Your task to perform on an android device: turn on data saver in the chrome app Image 0: 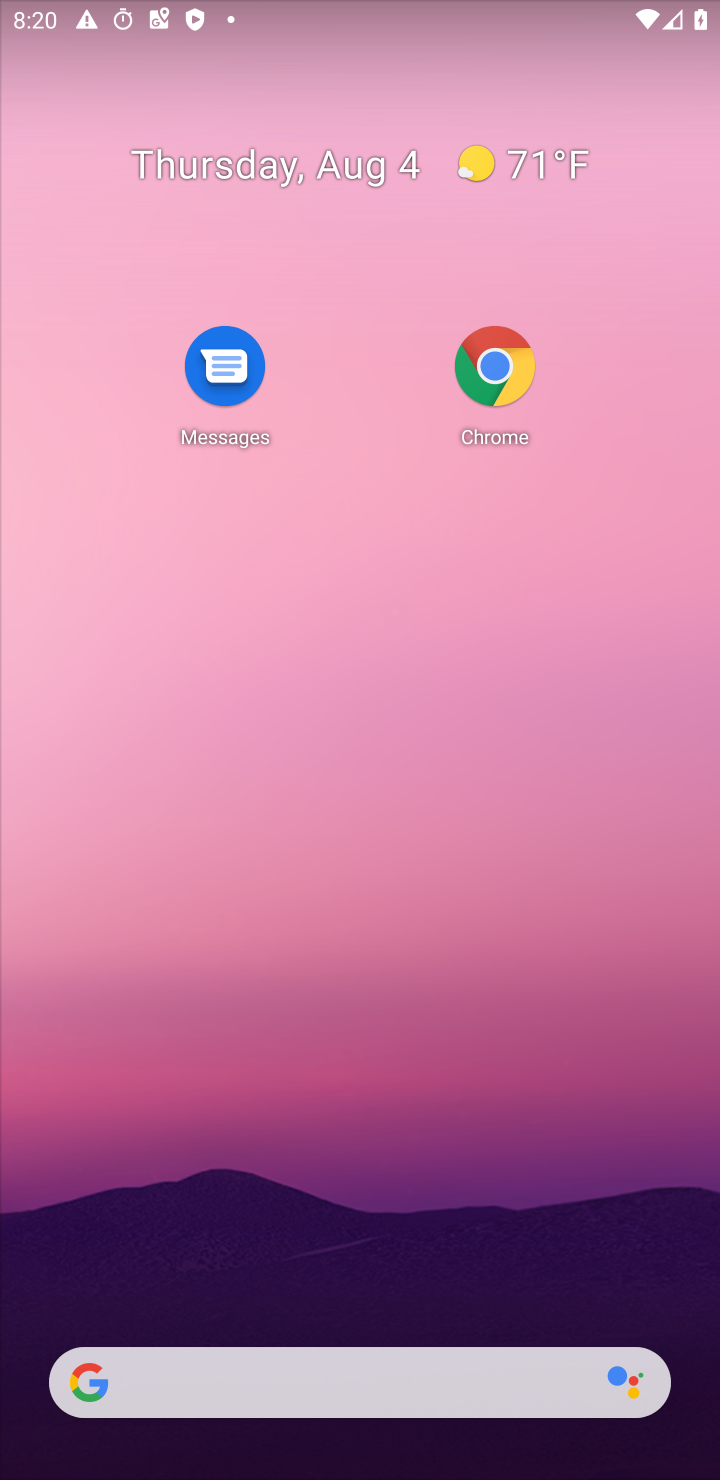
Step 0: drag from (480, 1287) to (596, 167)
Your task to perform on an android device: turn on data saver in the chrome app Image 1: 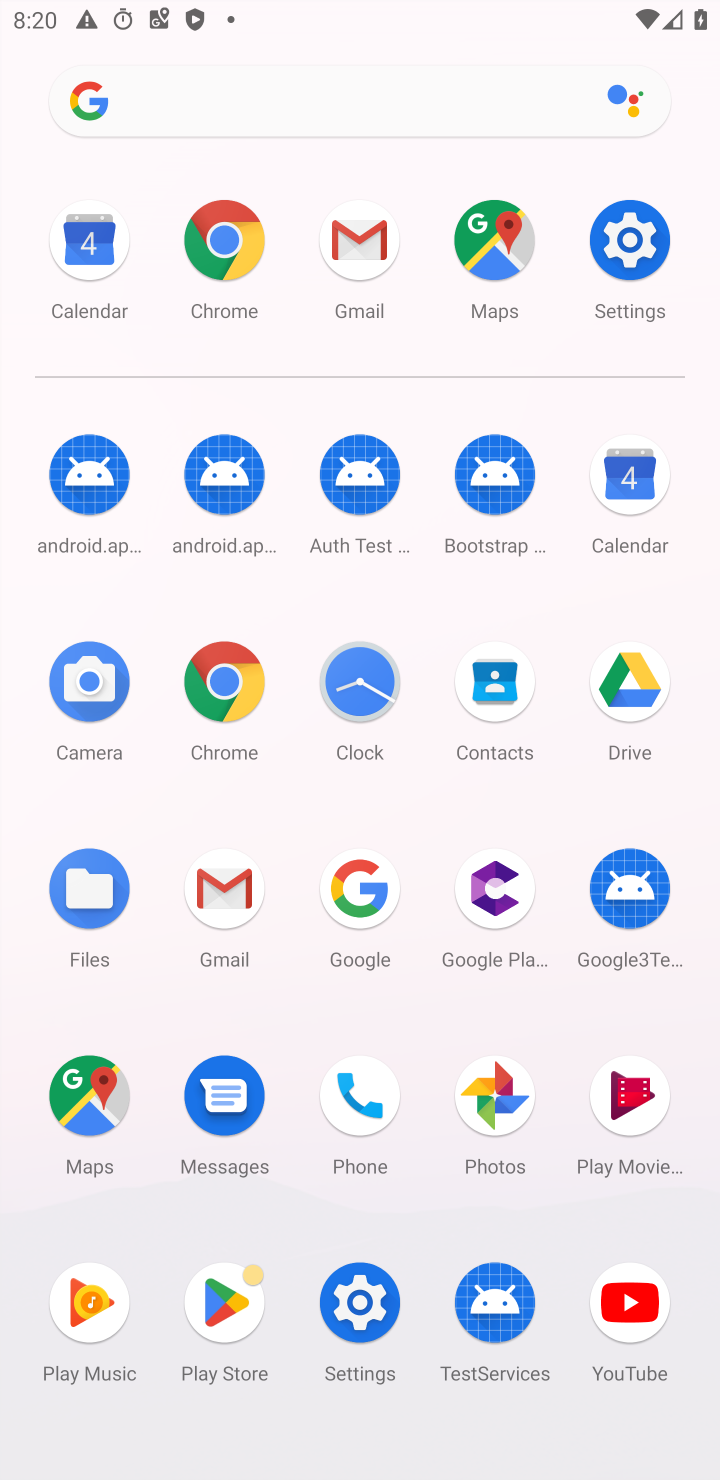
Step 1: click (226, 688)
Your task to perform on an android device: turn on data saver in the chrome app Image 2: 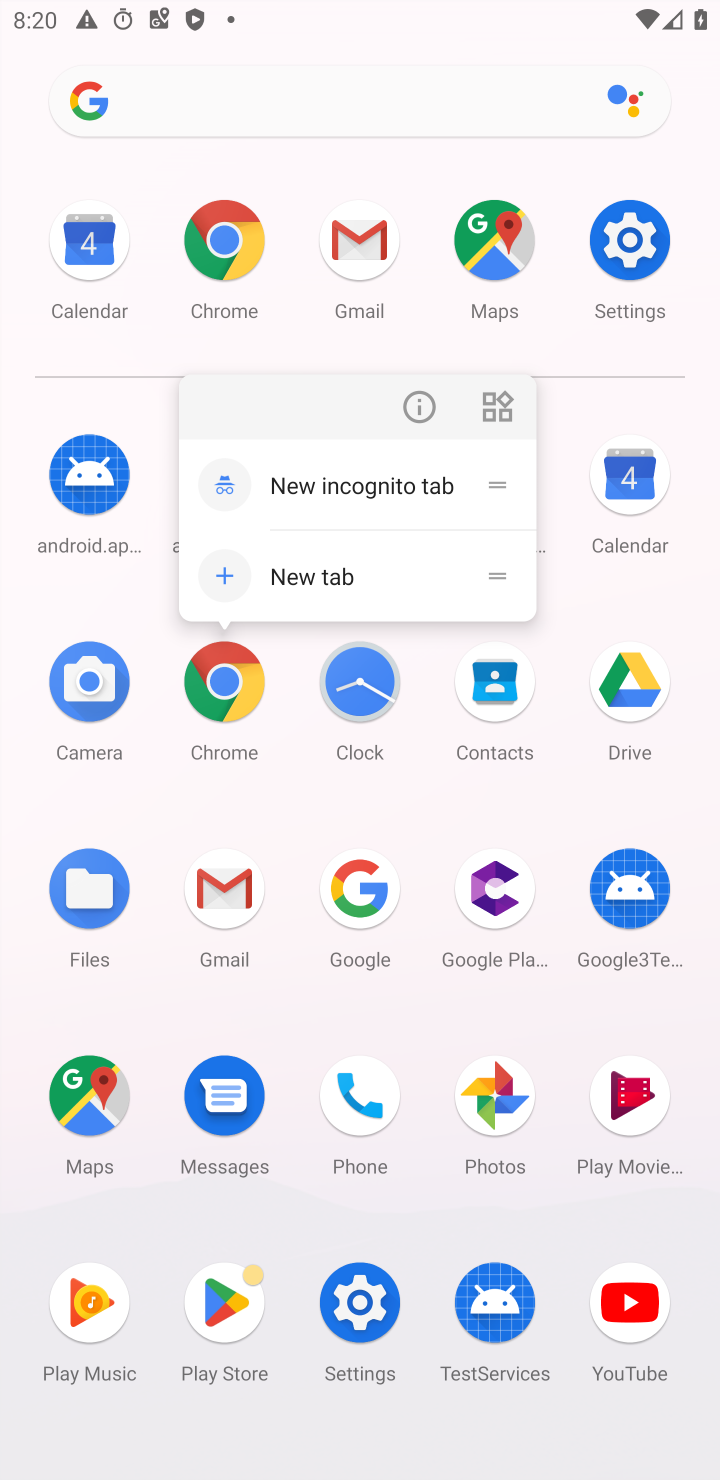
Step 2: click (240, 675)
Your task to perform on an android device: turn on data saver in the chrome app Image 3: 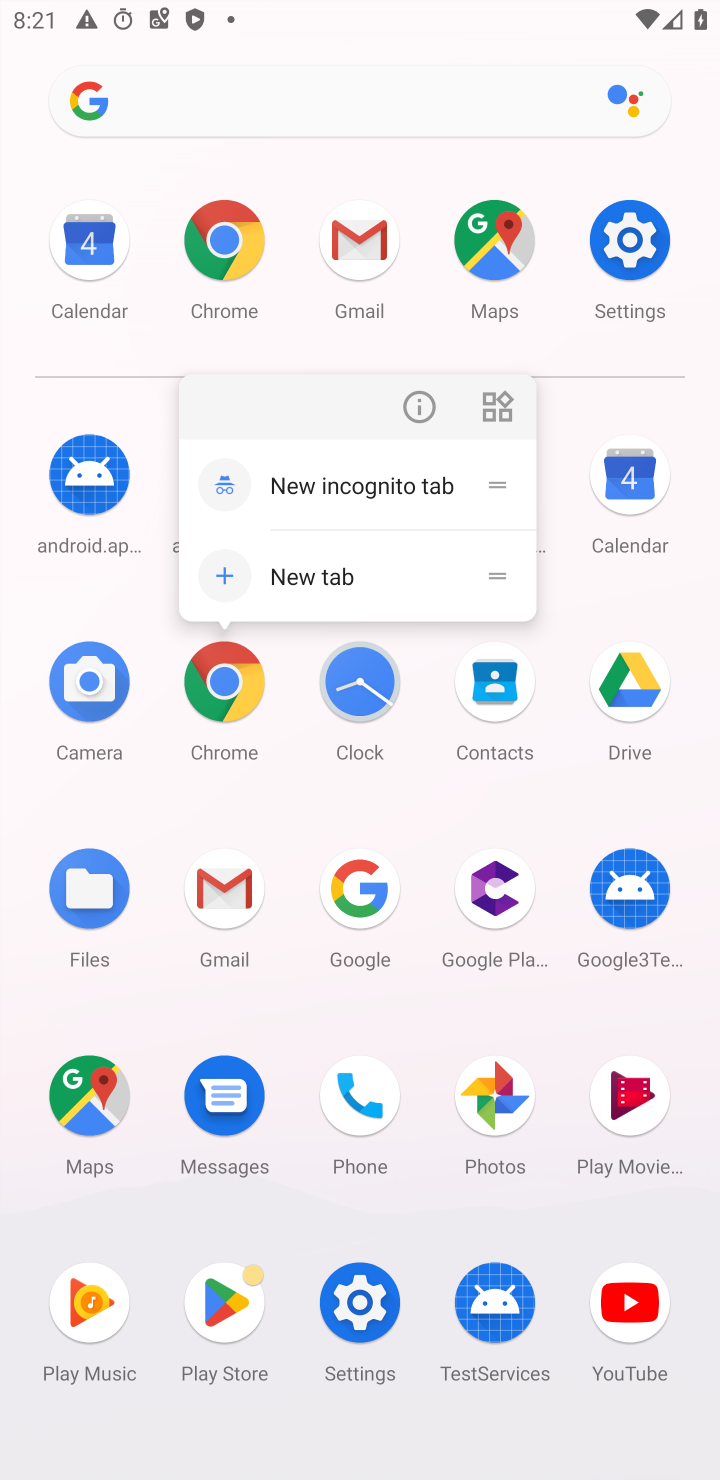
Step 3: click (240, 675)
Your task to perform on an android device: turn on data saver in the chrome app Image 4: 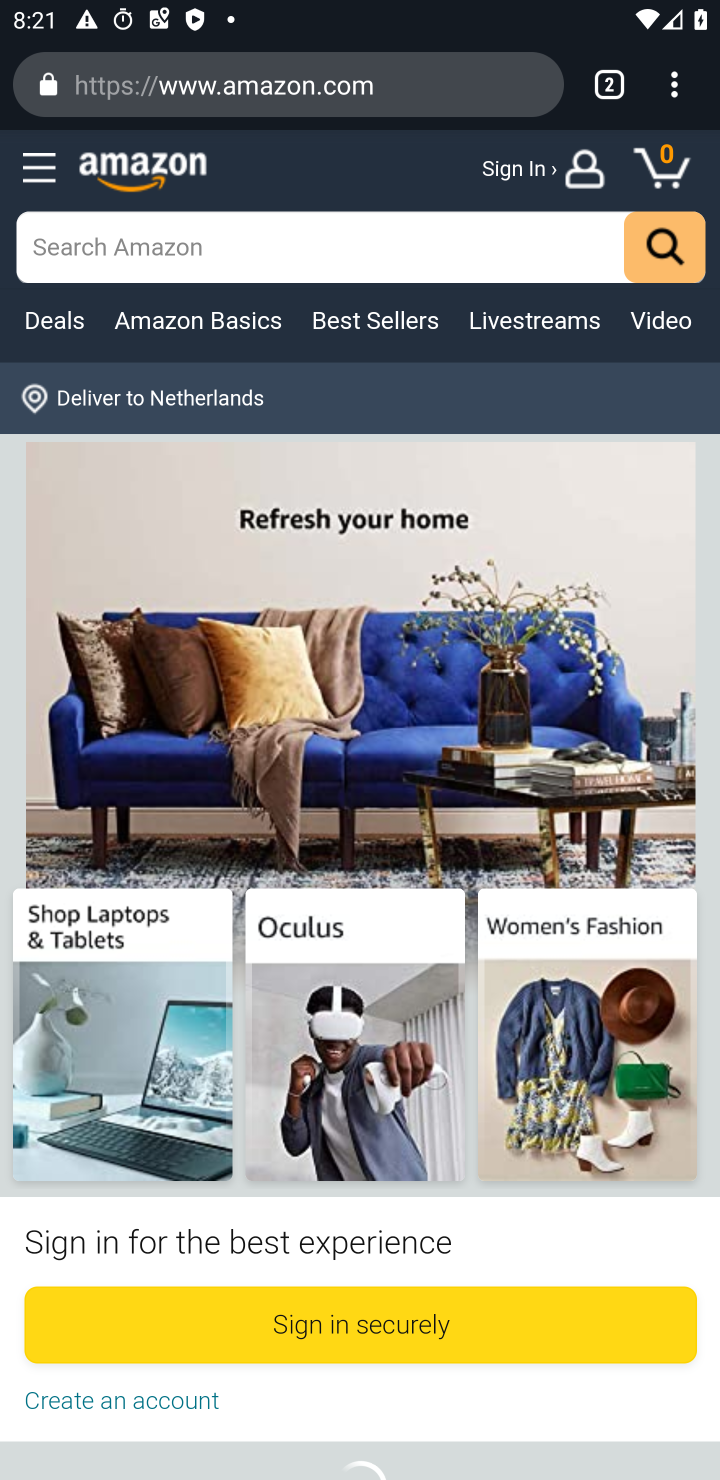
Step 4: click (670, 72)
Your task to perform on an android device: turn on data saver in the chrome app Image 5: 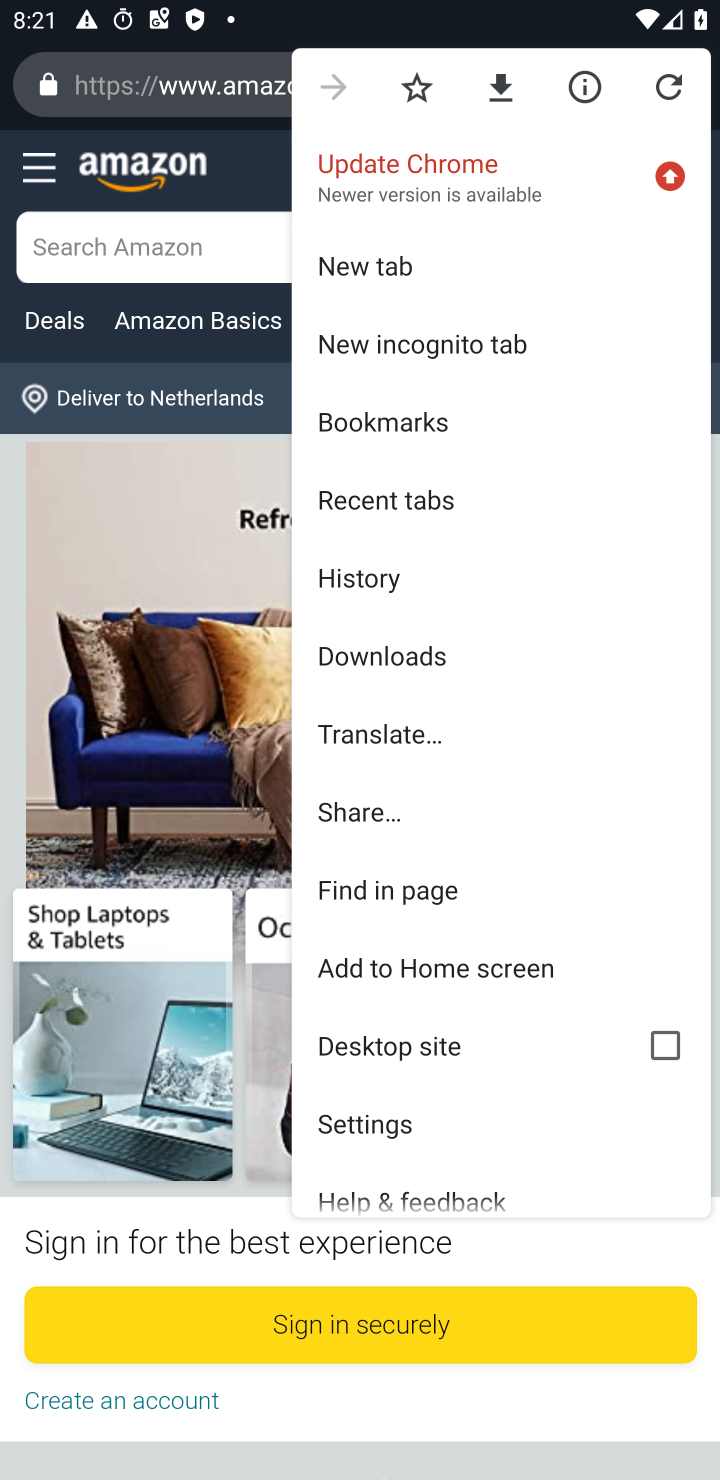
Step 5: click (374, 1118)
Your task to perform on an android device: turn on data saver in the chrome app Image 6: 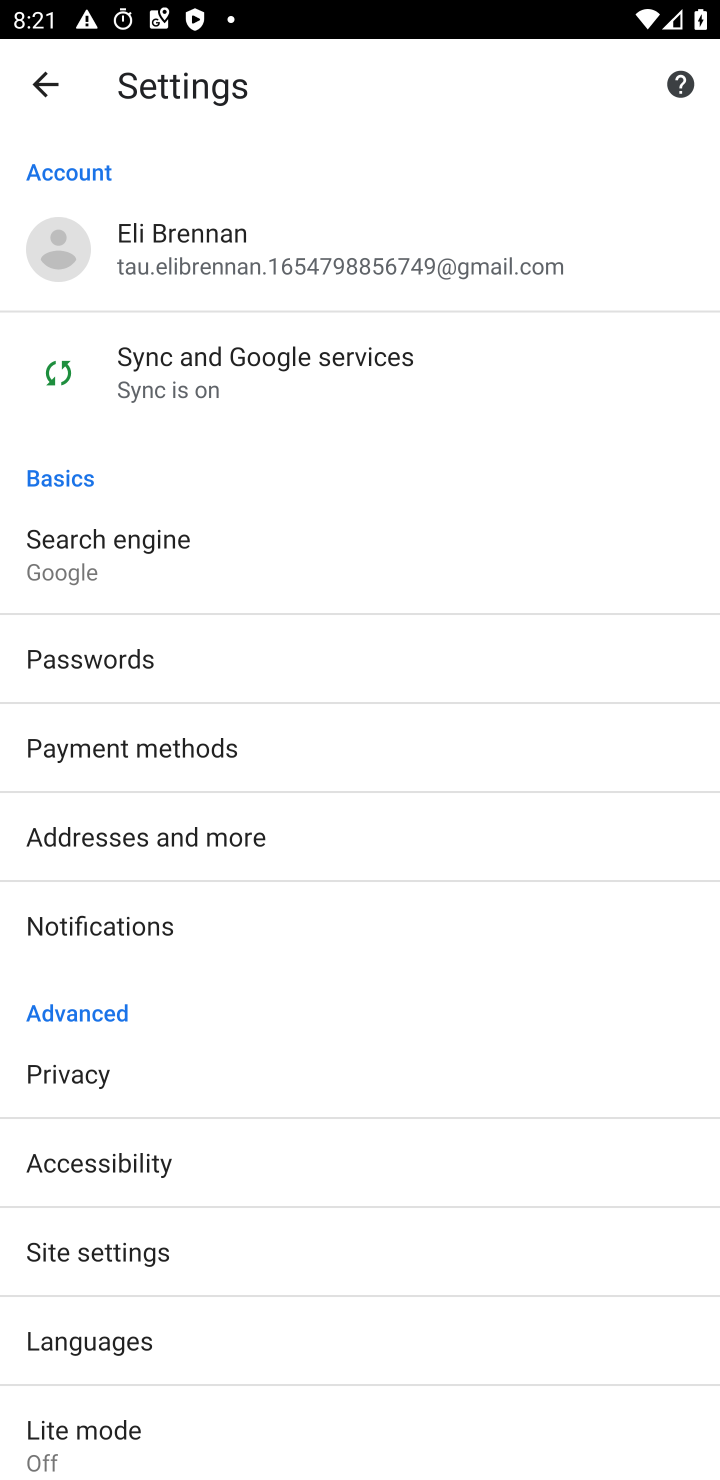
Step 6: click (131, 1429)
Your task to perform on an android device: turn on data saver in the chrome app Image 7: 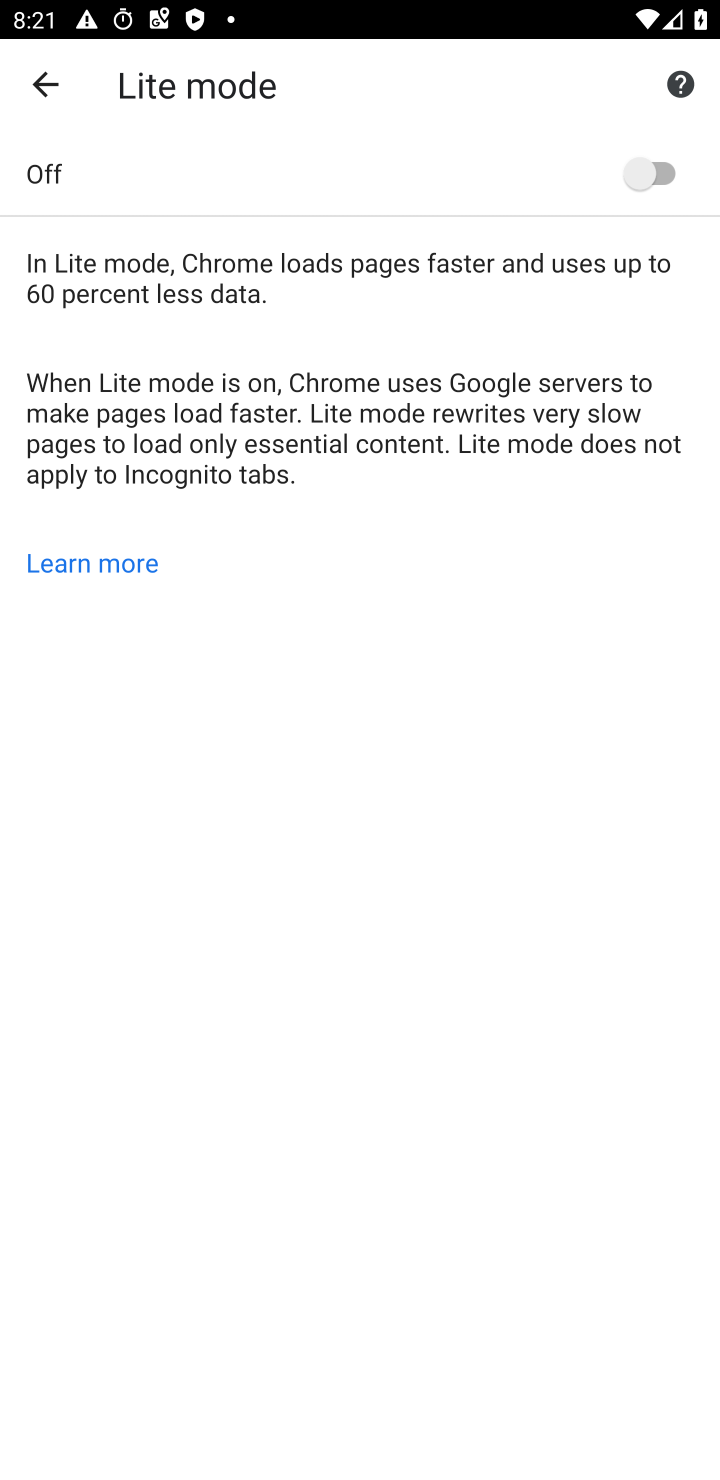
Step 7: click (645, 185)
Your task to perform on an android device: turn on data saver in the chrome app Image 8: 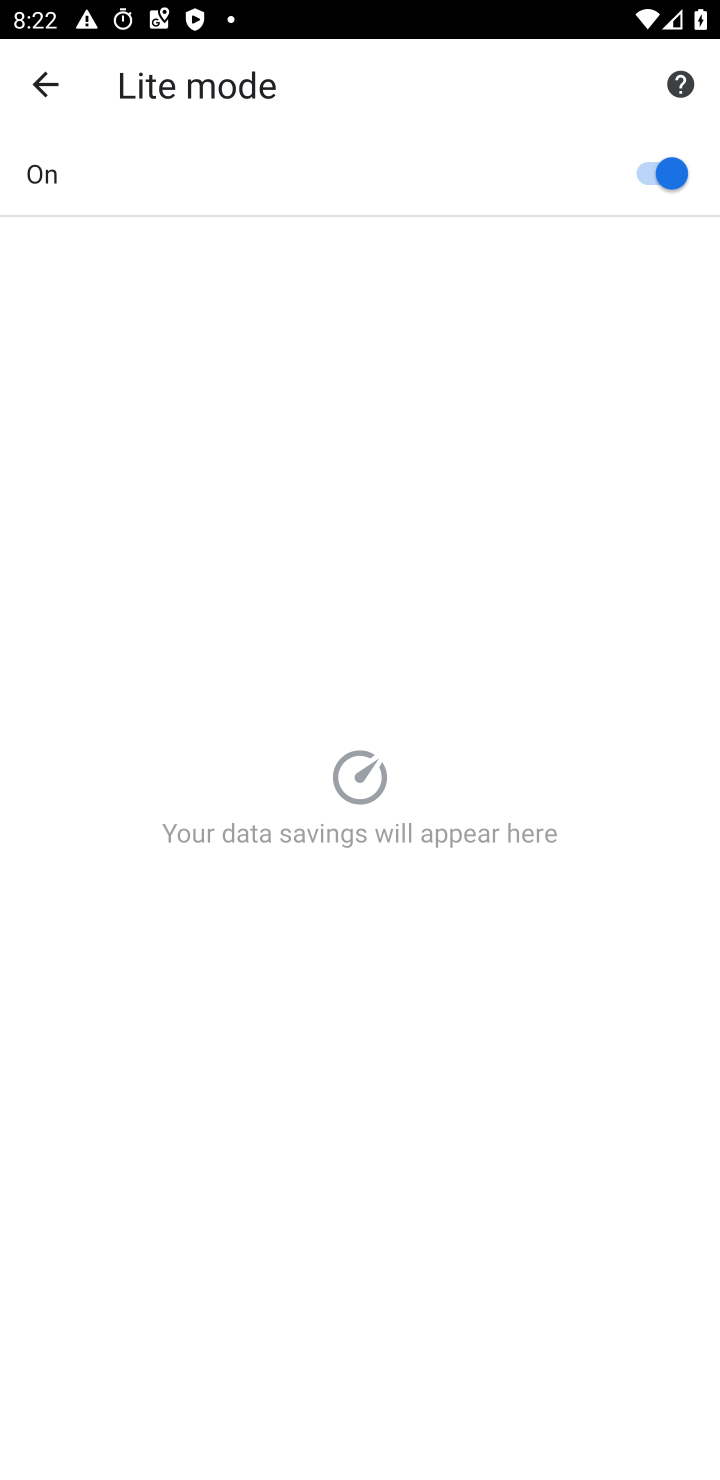
Step 8: task complete